Your task to perform on an android device: Go to Yahoo.com Image 0: 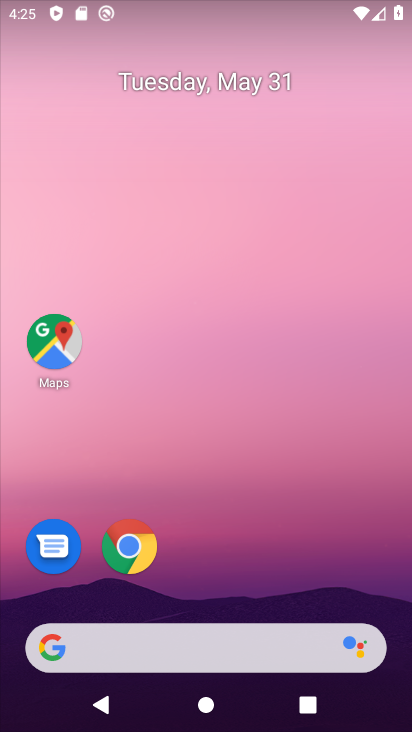
Step 0: click (144, 543)
Your task to perform on an android device: Go to Yahoo.com Image 1: 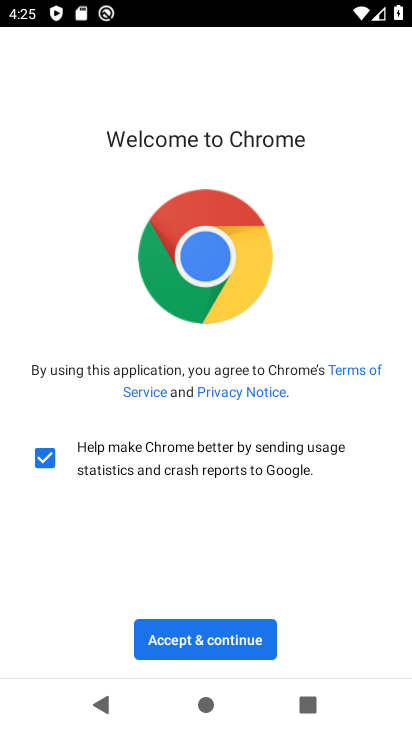
Step 1: click (186, 635)
Your task to perform on an android device: Go to Yahoo.com Image 2: 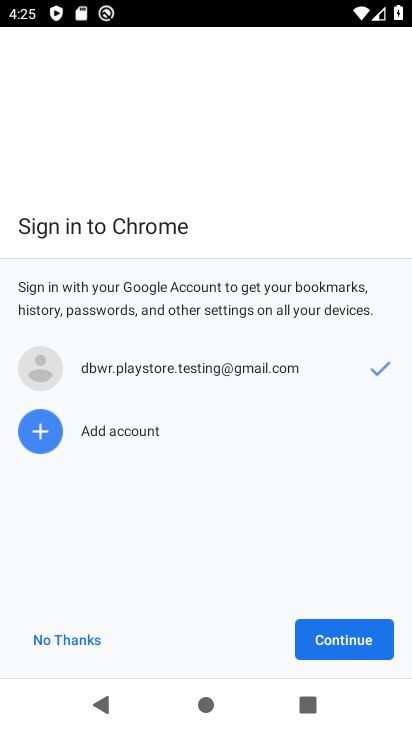
Step 2: click (356, 629)
Your task to perform on an android device: Go to Yahoo.com Image 3: 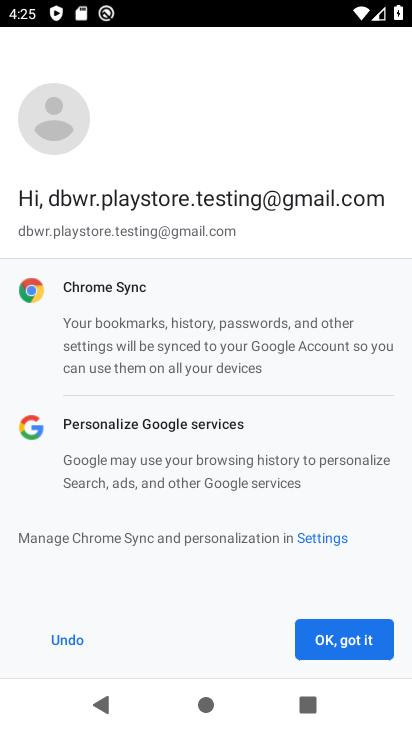
Step 3: click (356, 629)
Your task to perform on an android device: Go to Yahoo.com Image 4: 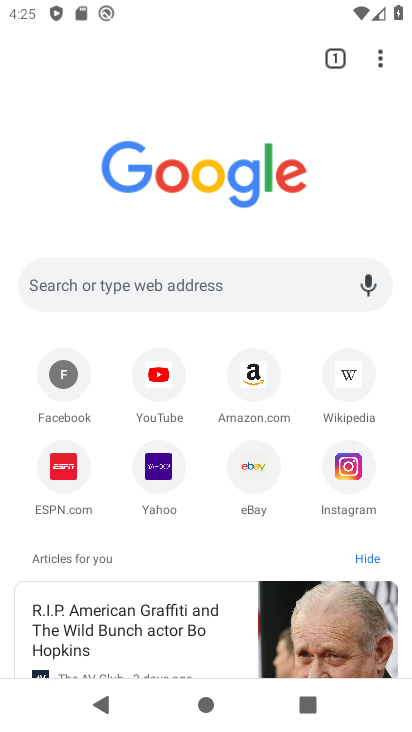
Step 4: click (177, 474)
Your task to perform on an android device: Go to Yahoo.com Image 5: 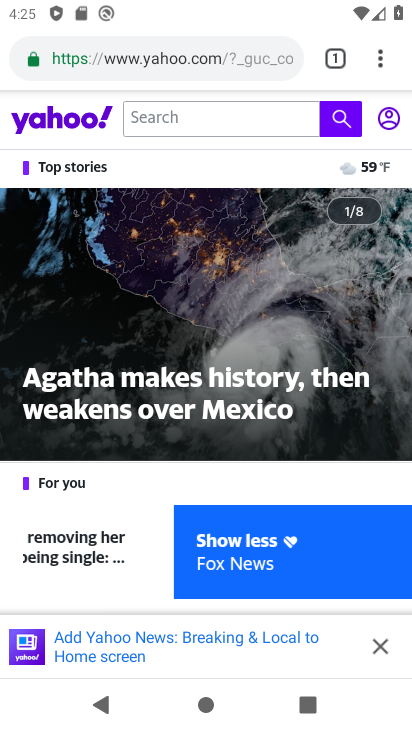
Step 5: task complete